Your task to perform on an android device: Open battery settings Image 0: 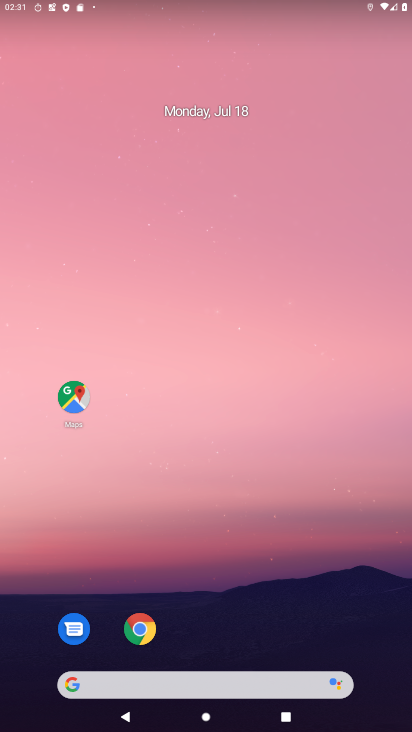
Step 0: press home button
Your task to perform on an android device: Open battery settings Image 1: 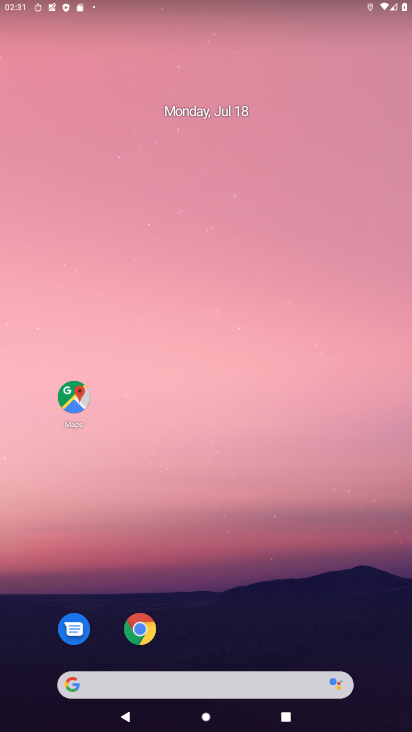
Step 1: drag from (217, 661) to (273, 0)
Your task to perform on an android device: Open battery settings Image 2: 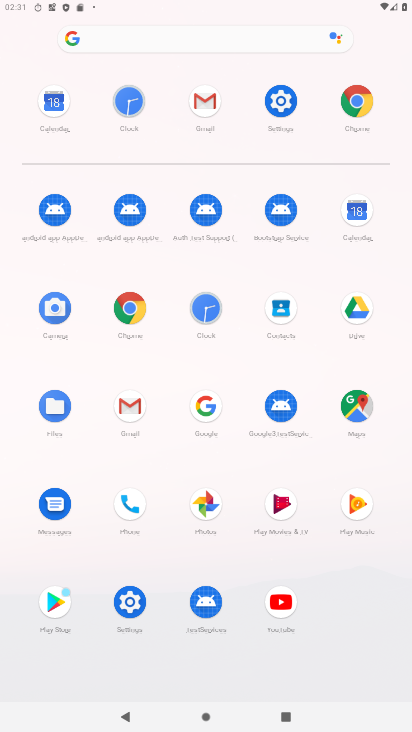
Step 2: click (284, 96)
Your task to perform on an android device: Open battery settings Image 3: 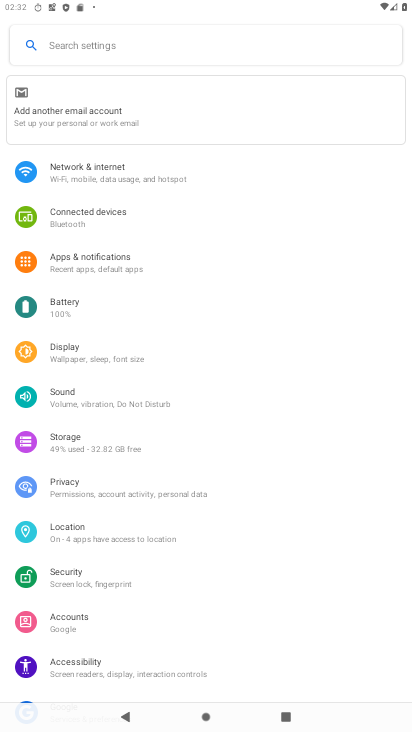
Step 3: click (83, 304)
Your task to perform on an android device: Open battery settings Image 4: 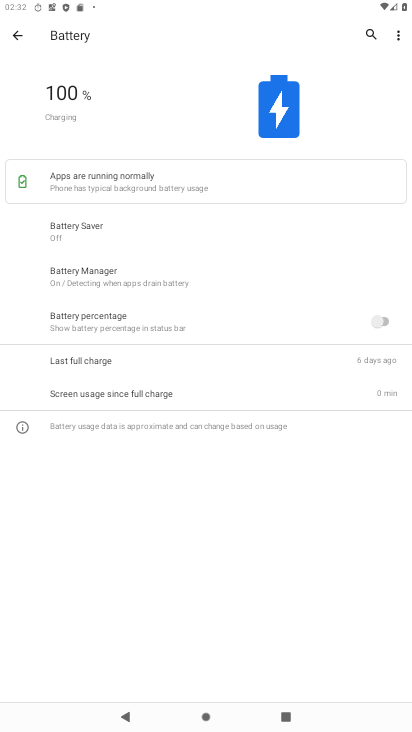
Step 4: task complete